Your task to perform on an android device: stop showing notifications on the lock screen Image 0: 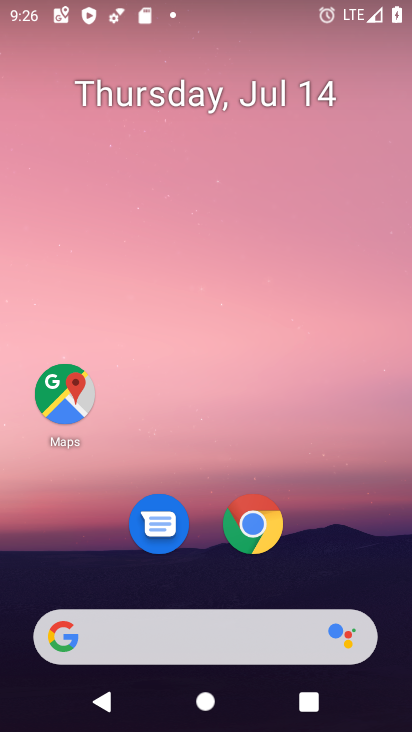
Step 0: drag from (290, 425) to (282, 52)
Your task to perform on an android device: stop showing notifications on the lock screen Image 1: 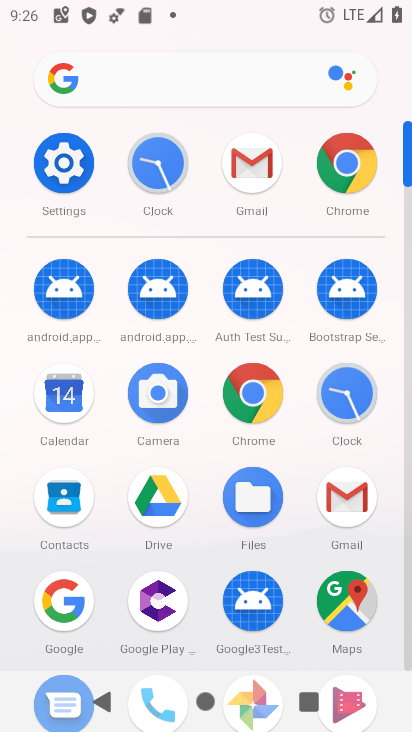
Step 1: click (77, 163)
Your task to perform on an android device: stop showing notifications on the lock screen Image 2: 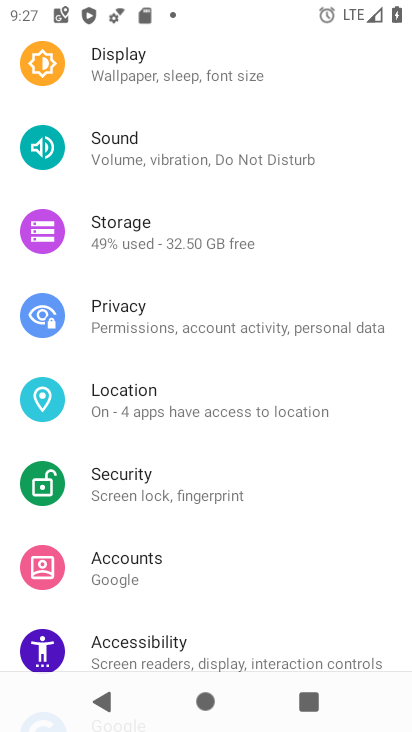
Step 2: drag from (231, 540) to (220, 148)
Your task to perform on an android device: stop showing notifications on the lock screen Image 3: 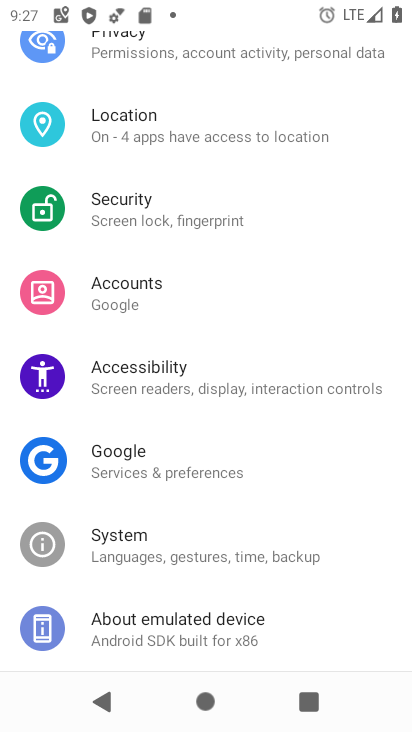
Step 3: drag from (237, 171) to (237, 624)
Your task to perform on an android device: stop showing notifications on the lock screen Image 4: 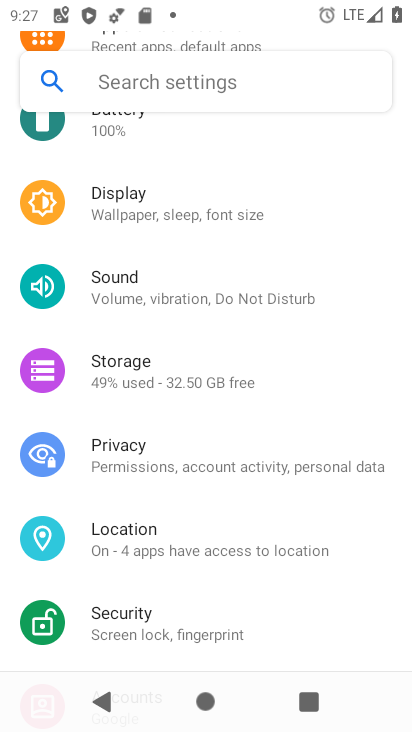
Step 4: drag from (203, 170) to (210, 539)
Your task to perform on an android device: stop showing notifications on the lock screen Image 5: 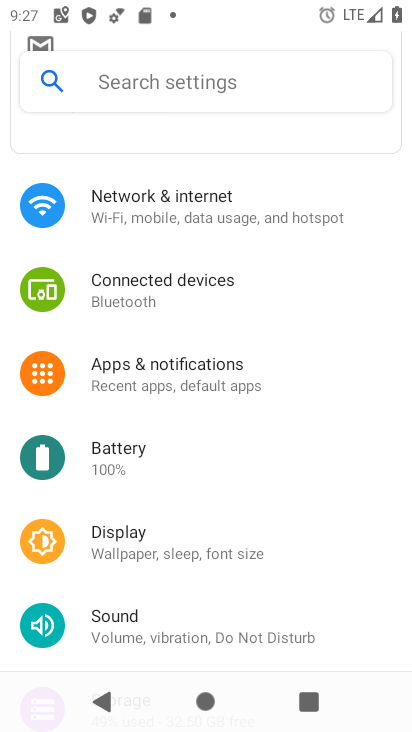
Step 5: click (192, 374)
Your task to perform on an android device: stop showing notifications on the lock screen Image 6: 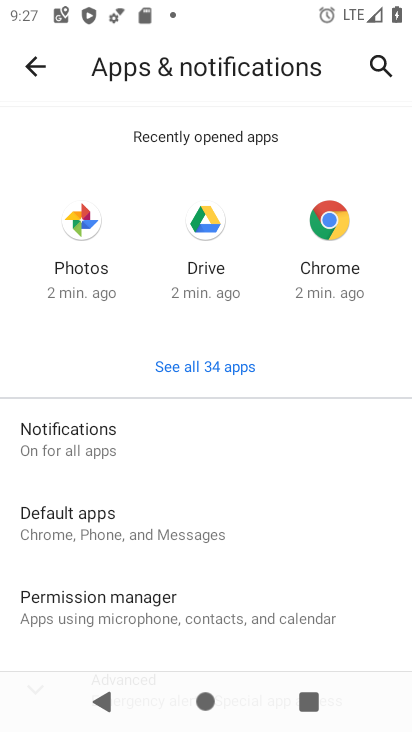
Step 6: drag from (194, 539) to (200, 428)
Your task to perform on an android device: stop showing notifications on the lock screen Image 7: 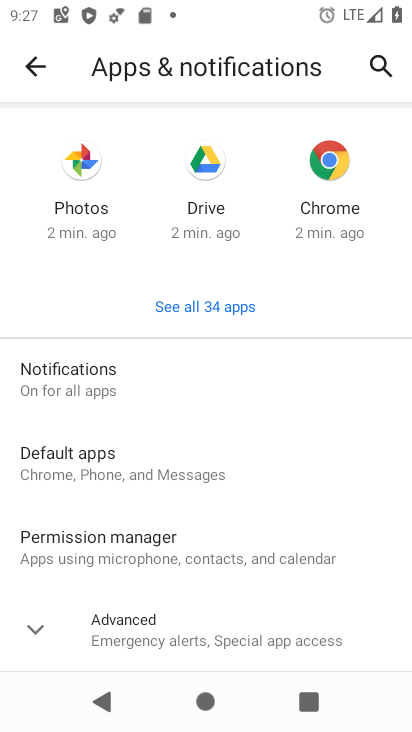
Step 7: click (107, 366)
Your task to perform on an android device: stop showing notifications on the lock screen Image 8: 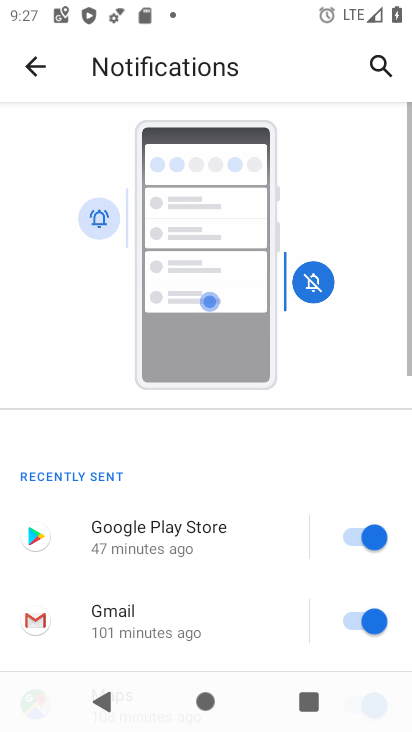
Step 8: drag from (275, 512) to (208, 181)
Your task to perform on an android device: stop showing notifications on the lock screen Image 9: 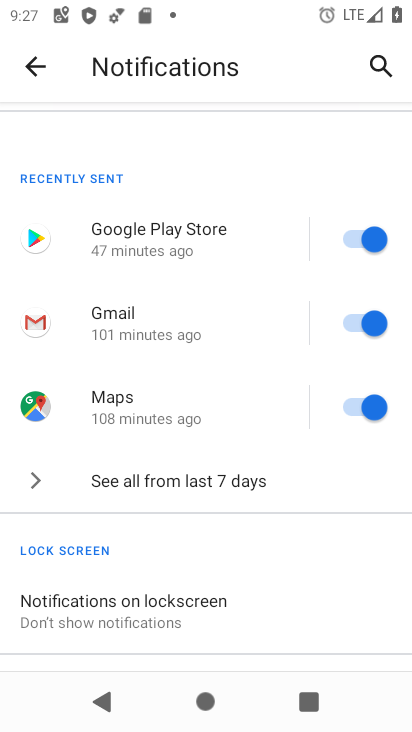
Step 9: click (150, 604)
Your task to perform on an android device: stop showing notifications on the lock screen Image 10: 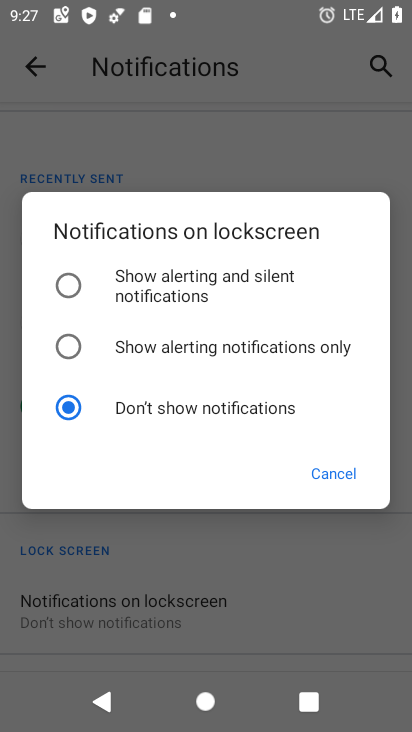
Step 10: click (330, 474)
Your task to perform on an android device: stop showing notifications on the lock screen Image 11: 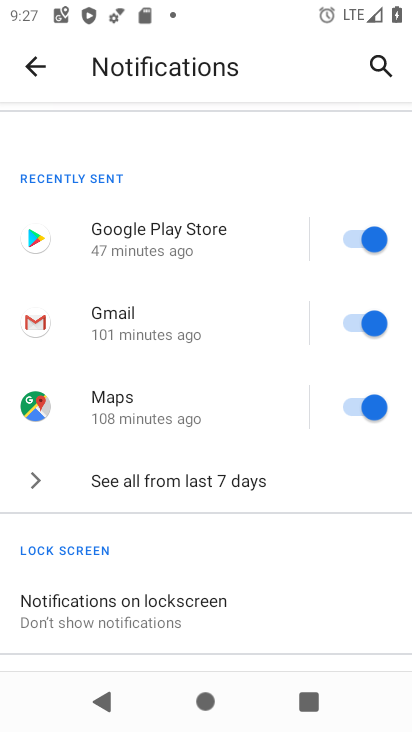
Step 11: task complete